Your task to perform on an android device: stop showing notifications on the lock screen Image 0: 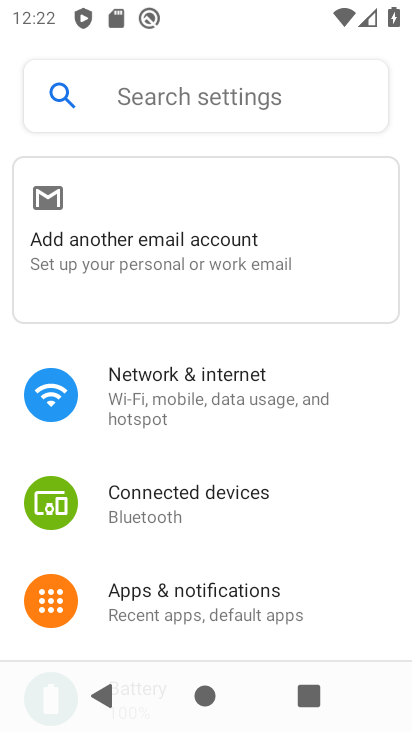
Step 0: drag from (357, 463) to (359, 252)
Your task to perform on an android device: stop showing notifications on the lock screen Image 1: 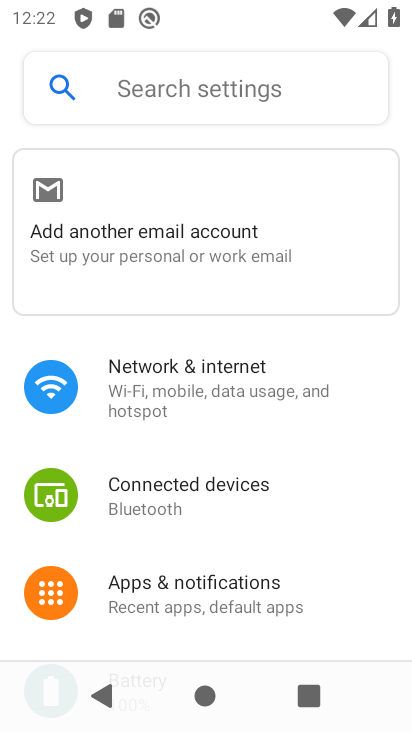
Step 1: click (285, 594)
Your task to perform on an android device: stop showing notifications on the lock screen Image 2: 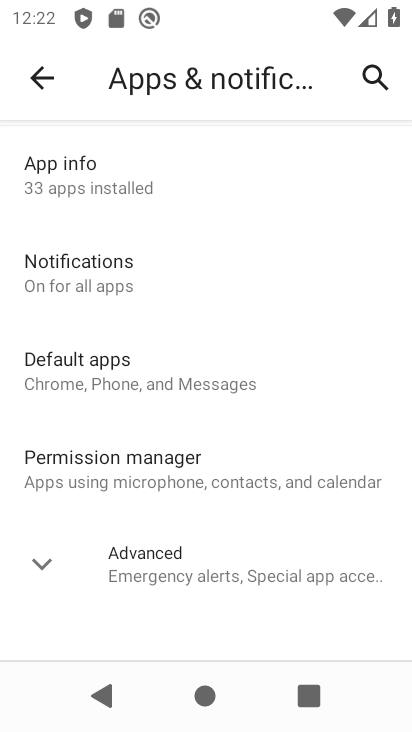
Step 2: click (62, 279)
Your task to perform on an android device: stop showing notifications on the lock screen Image 3: 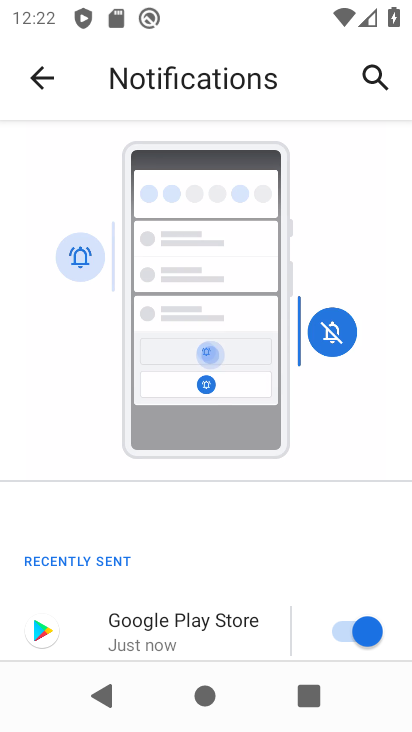
Step 3: drag from (229, 530) to (359, 248)
Your task to perform on an android device: stop showing notifications on the lock screen Image 4: 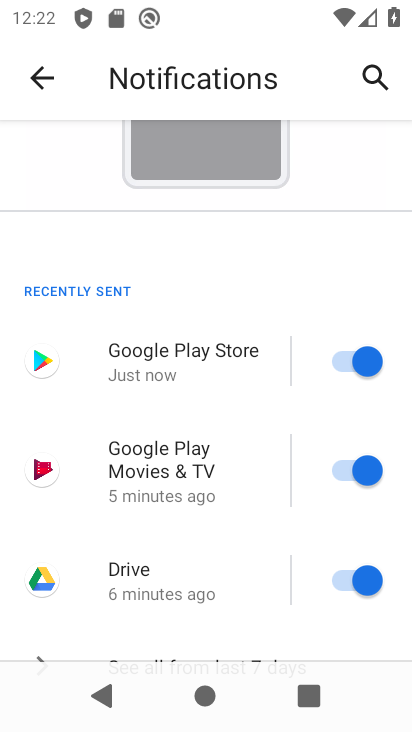
Step 4: drag from (262, 631) to (288, 297)
Your task to perform on an android device: stop showing notifications on the lock screen Image 5: 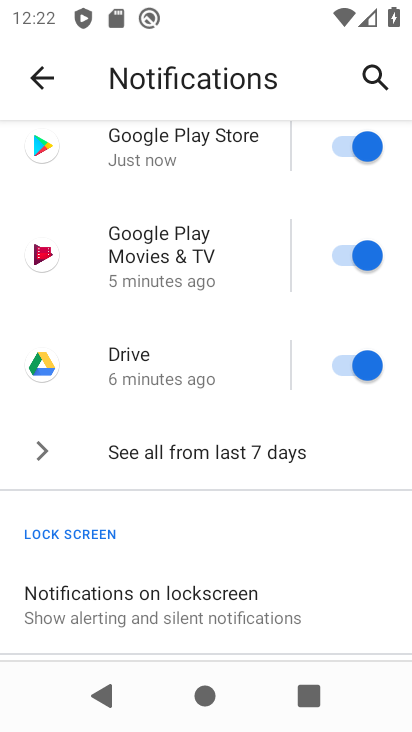
Step 5: click (200, 606)
Your task to perform on an android device: stop showing notifications on the lock screen Image 6: 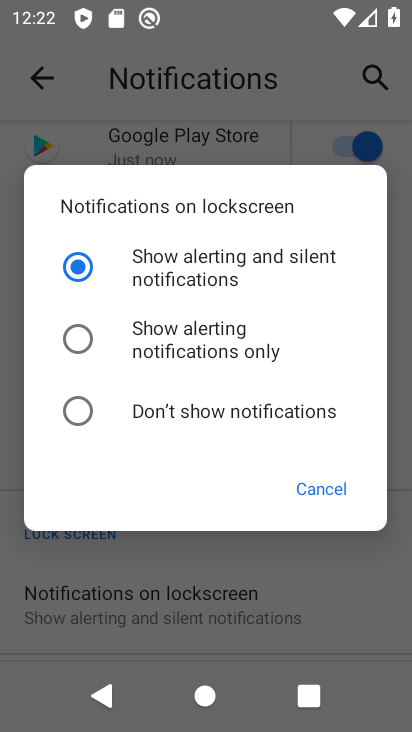
Step 6: click (193, 415)
Your task to perform on an android device: stop showing notifications on the lock screen Image 7: 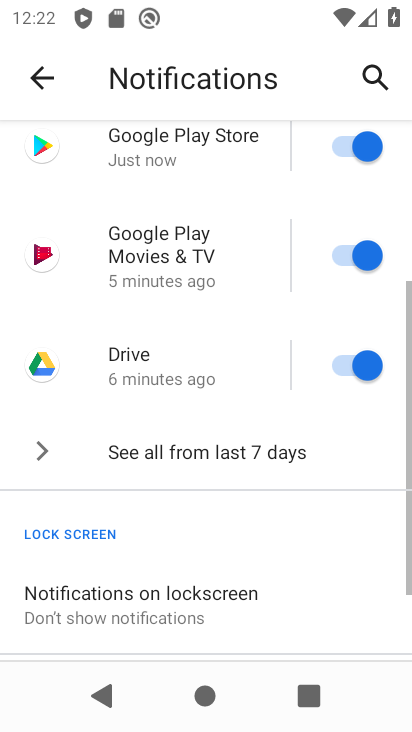
Step 7: task complete